Your task to perform on an android device: toggle translation in the chrome app Image 0: 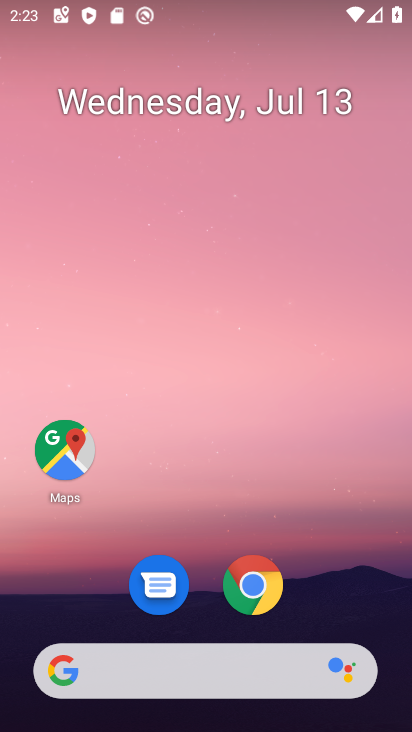
Step 0: click (247, 592)
Your task to perform on an android device: toggle translation in the chrome app Image 1: 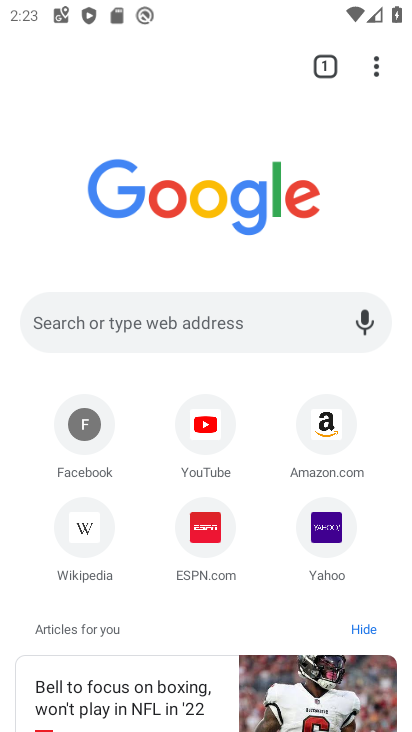
Step 1: drag from (373, 67) to (202, 552)
Your task to perform on an android device: toggle translation in the chrome app Image 2: 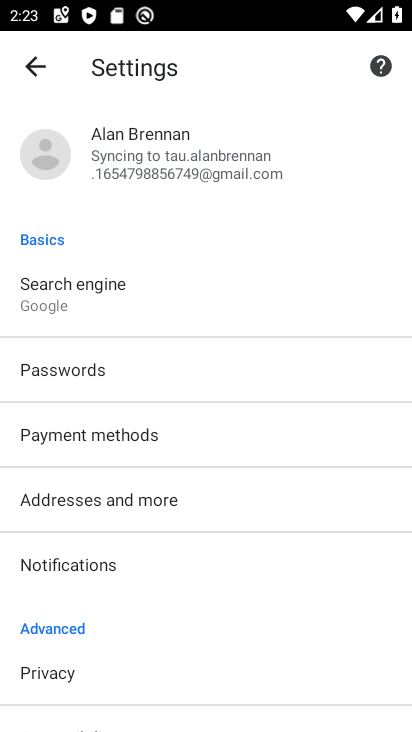
Step 2: drag from (130, 601) to (276, 139)
Your task to perform on an android device: toggle translation in the chrome app Image 3: 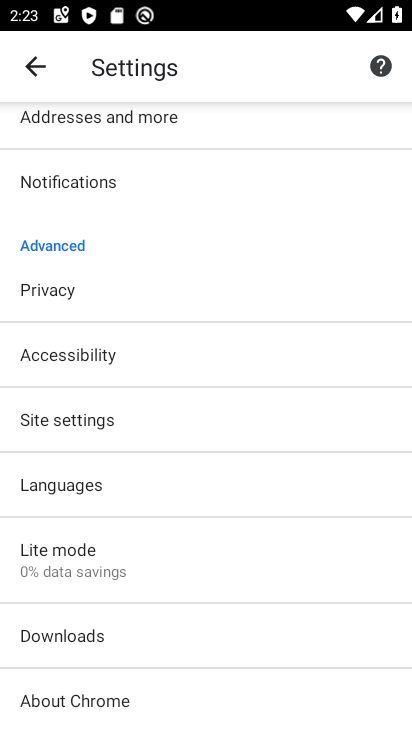
Step 3: click (125, 487)
Your task to perform on an android device: toggle translation in the chrome app Image 4: 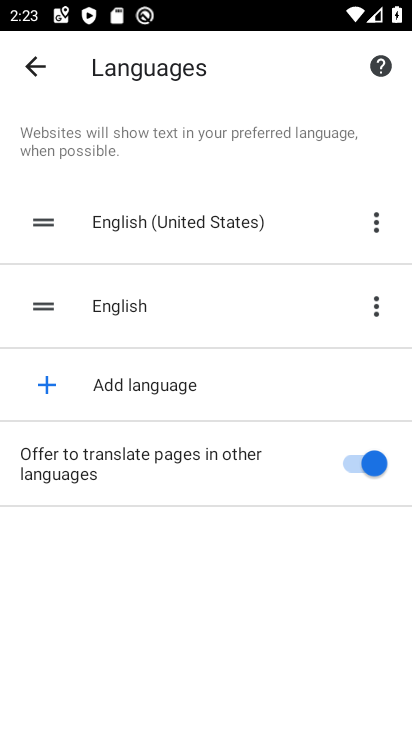
Step 4: click (350, 464)
Your task to perform on an android device: toggle translation in the chrome app Image 5: 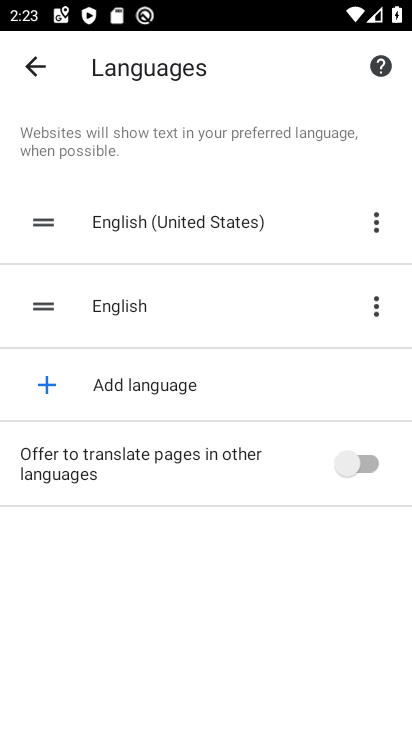
Step 5: task complete